Your task to perform on an android device: add a contact in the contacts app Image 0: 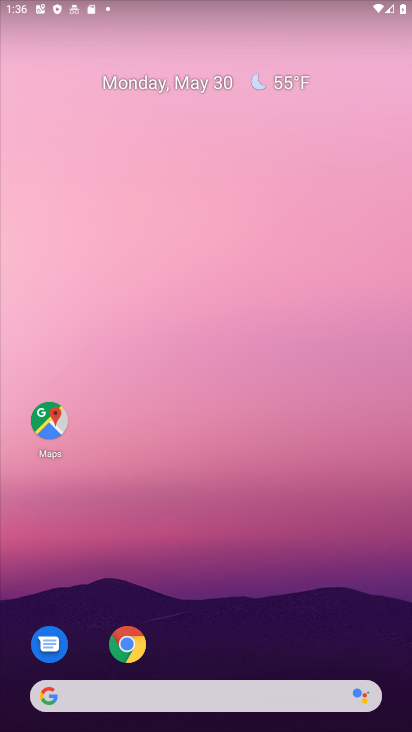
Step 0: drag from (319, 637) to (186, 13)
Your task to perform on an android device: add a contact in the contacts app Image 1: 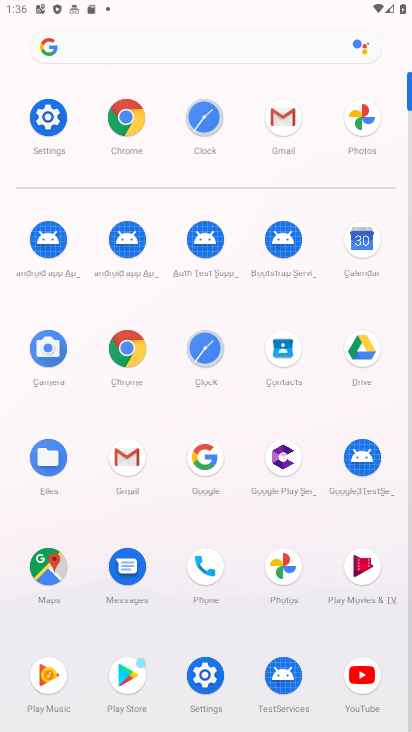
Step 1: click (358, 265)
Your task to perform on an android device: add a contact in the contacts app Image 2: 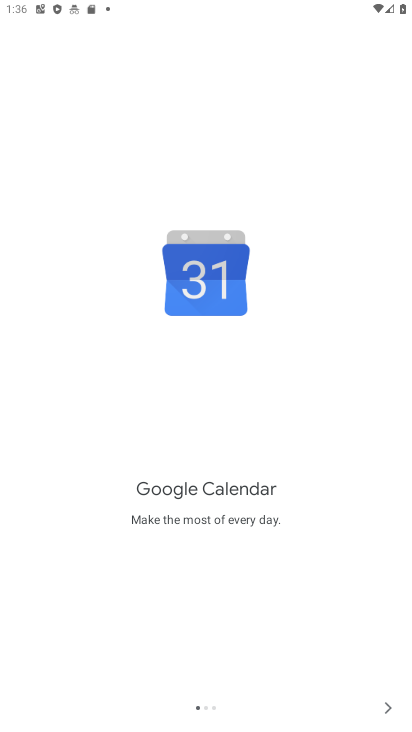
Step 2: click (381, 711)
Your task to perform on an android device: add a contact in the contacts app Image 3: 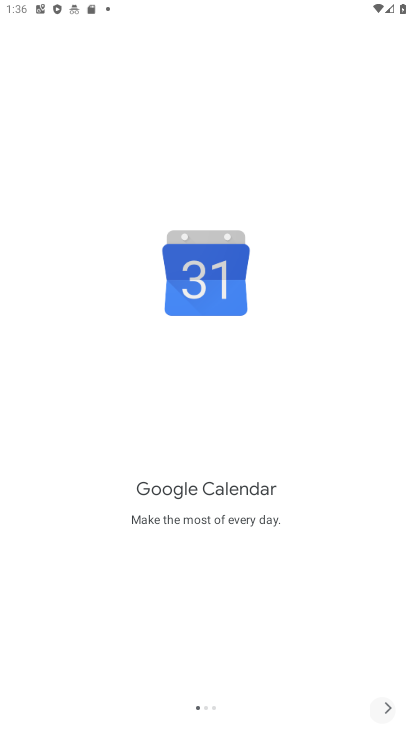
Step 3: click (381, 711)
Your task to perform on an android device: add a contact in the contacts app Image 4: 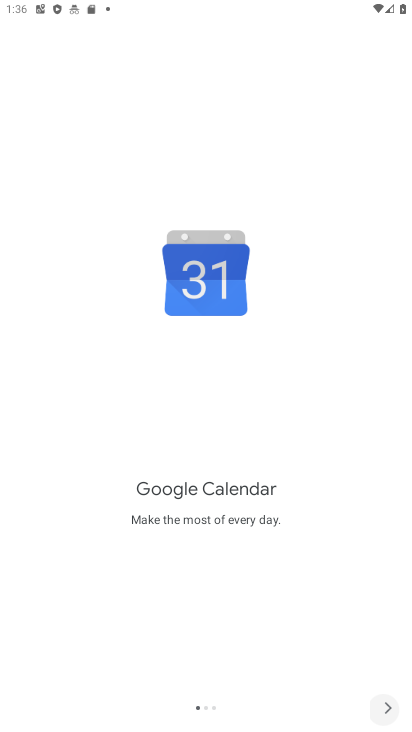
Step 4: click (381, 711)
Your task to perform on an android device: add a contact in the contacts app Image 5: 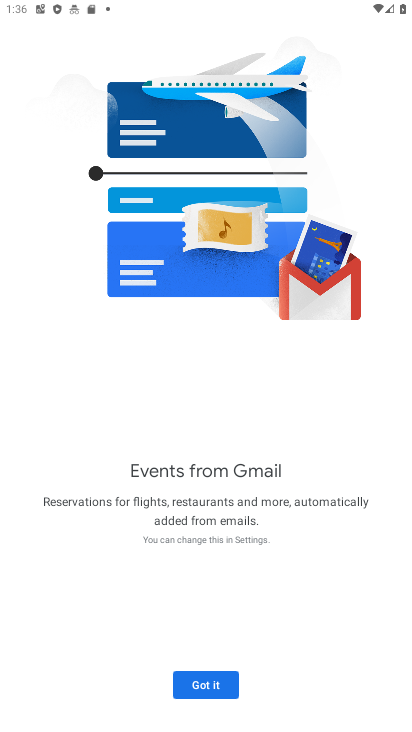
Step 5: click (381, 711)
Your task to perform on an android device: add a contact in the contacts app Image 6: 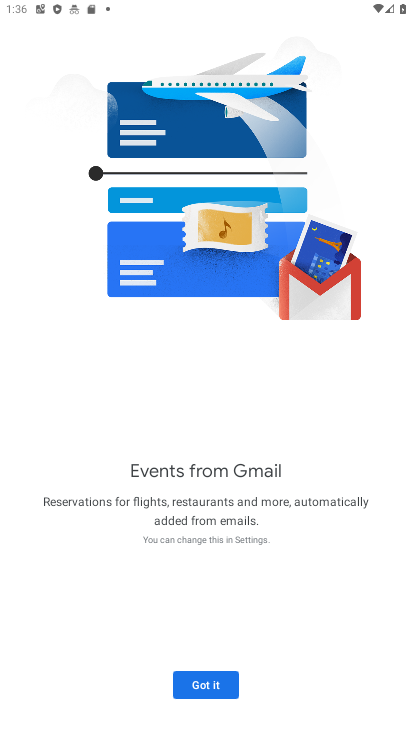
Step 6: click (194, 687)
Your task to perform on an android device: add a contact in the contacts app Image 7: 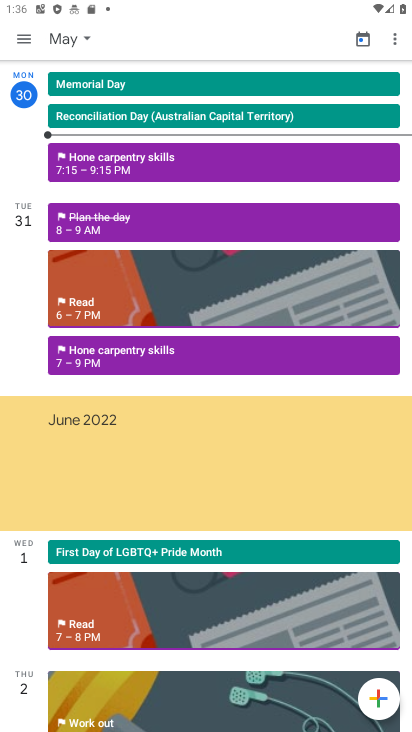
Step 7: task complete